Your task to perform on an android device: empty trash in google photos Image 0: 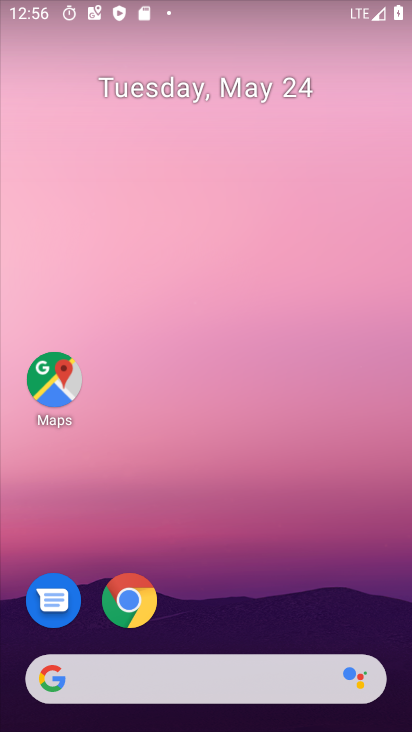
Step 0: drag from (266, 580) to (244, 228)
Your task to perform on an android device: empty trash in google photos Image 1: 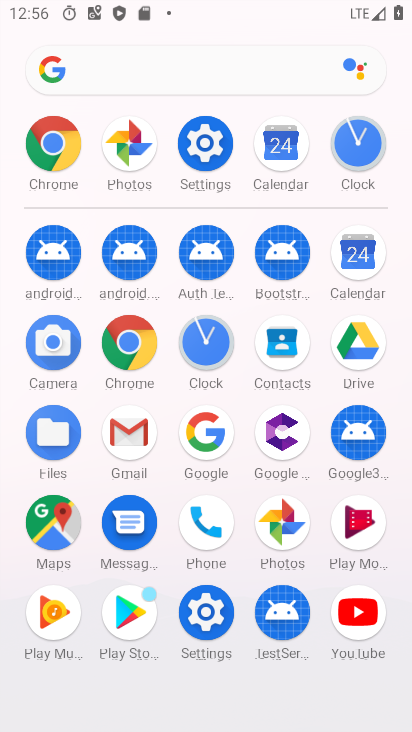
Step 1: click (122, 147)
Your task to perform on an android device: empty trash in google photos Image 2: 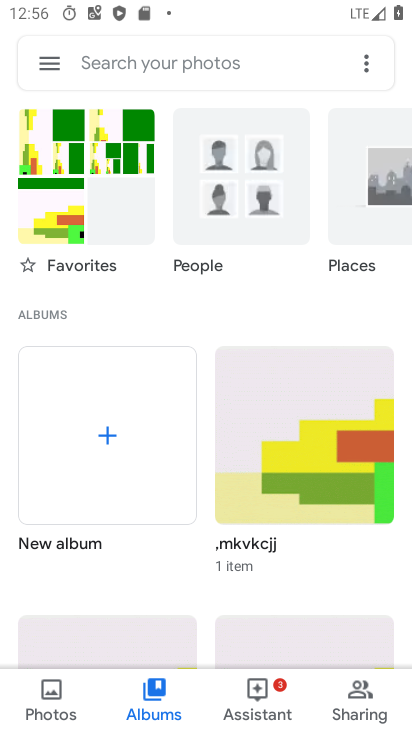
Step 2: click (54, 59)
Your task to perform on an android device: empty trash in google photos Image 3: 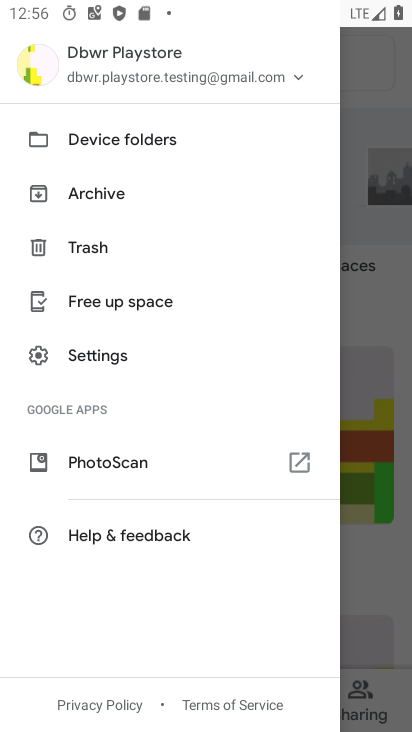
Step 3: click (98, 258)
Your task to perform on an android device: empty trash in google photos Image 4: 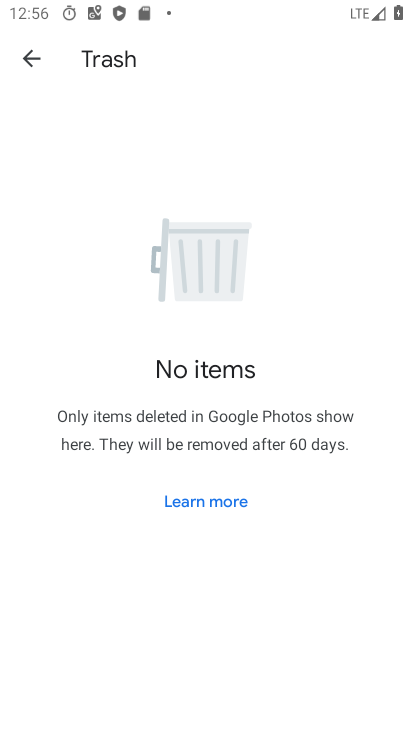
Step 4: task complete